Your task to perform on an android device: Go to Amazon Image 0: 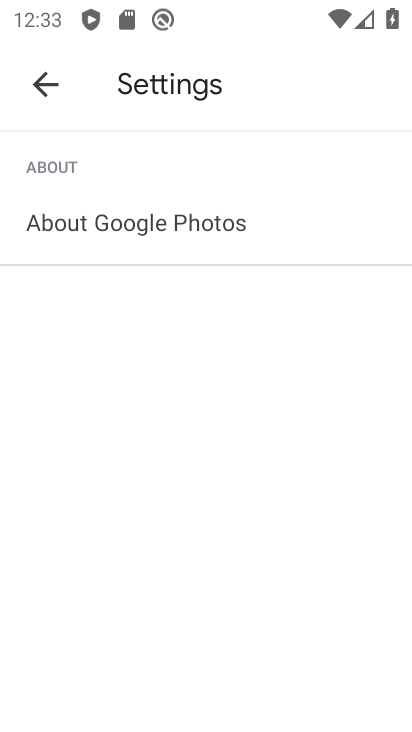
Step 0: press home button
Your task to perform on an android device: Go to Amazon Image 1: 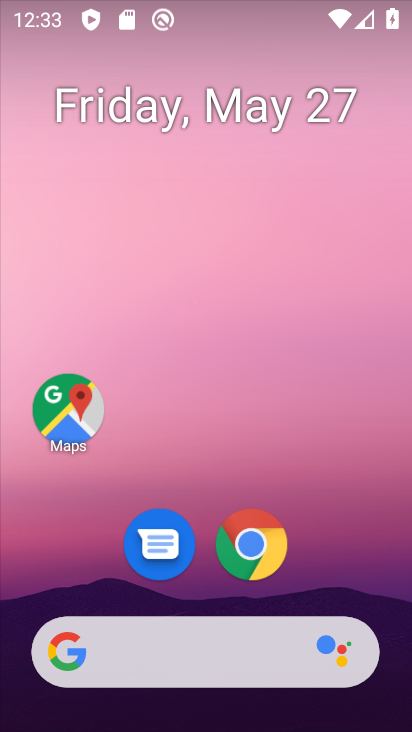
Step 1: click (251, 544)
Your task to perform on an android device: Go to Amazon Image 2: 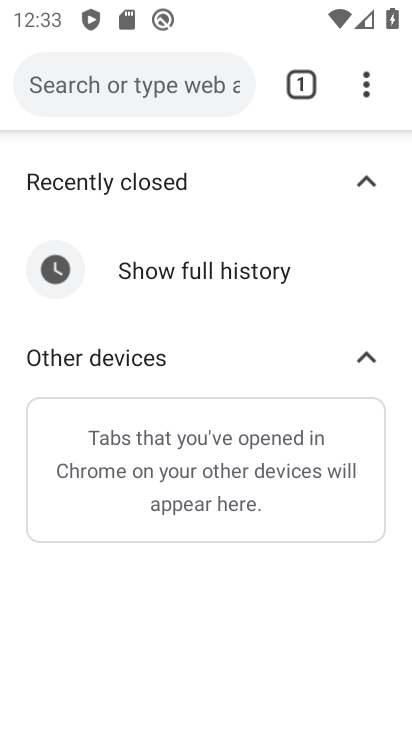
Step 2: click (363, 84)
Your task to perform on an android device: Go to Amazon Image 3: 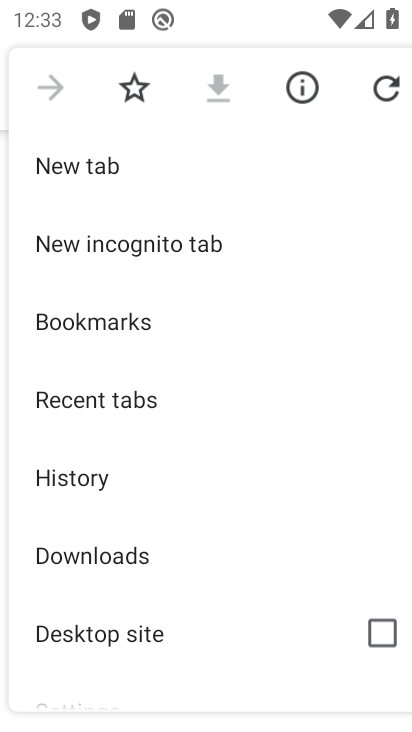
Step 3: click (119, 166)
Your task to perform on an android device: Go to Amazon Image 4: 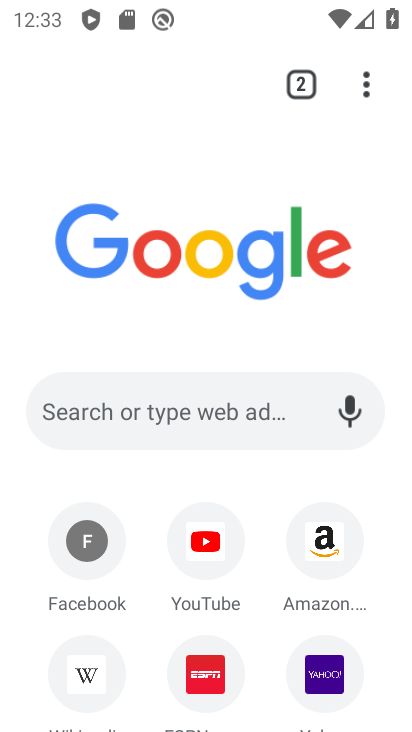
Step 4: click (323, 548)
Your task to perform on an android device: Go to Amazon Image 5: 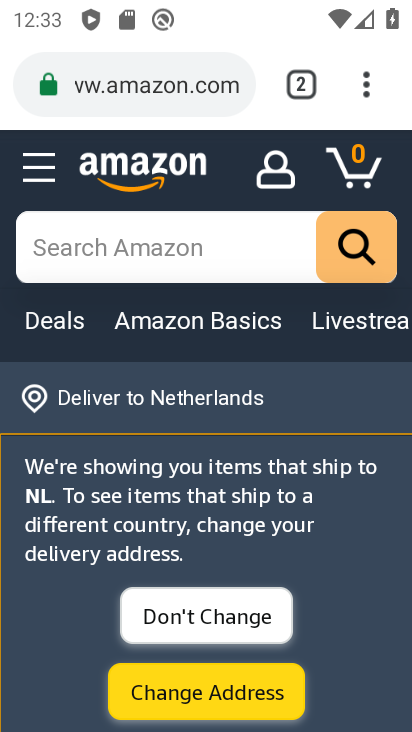
Step 5: task complete